Your task to perform on an android device: clear history in the chrome app Image 0: 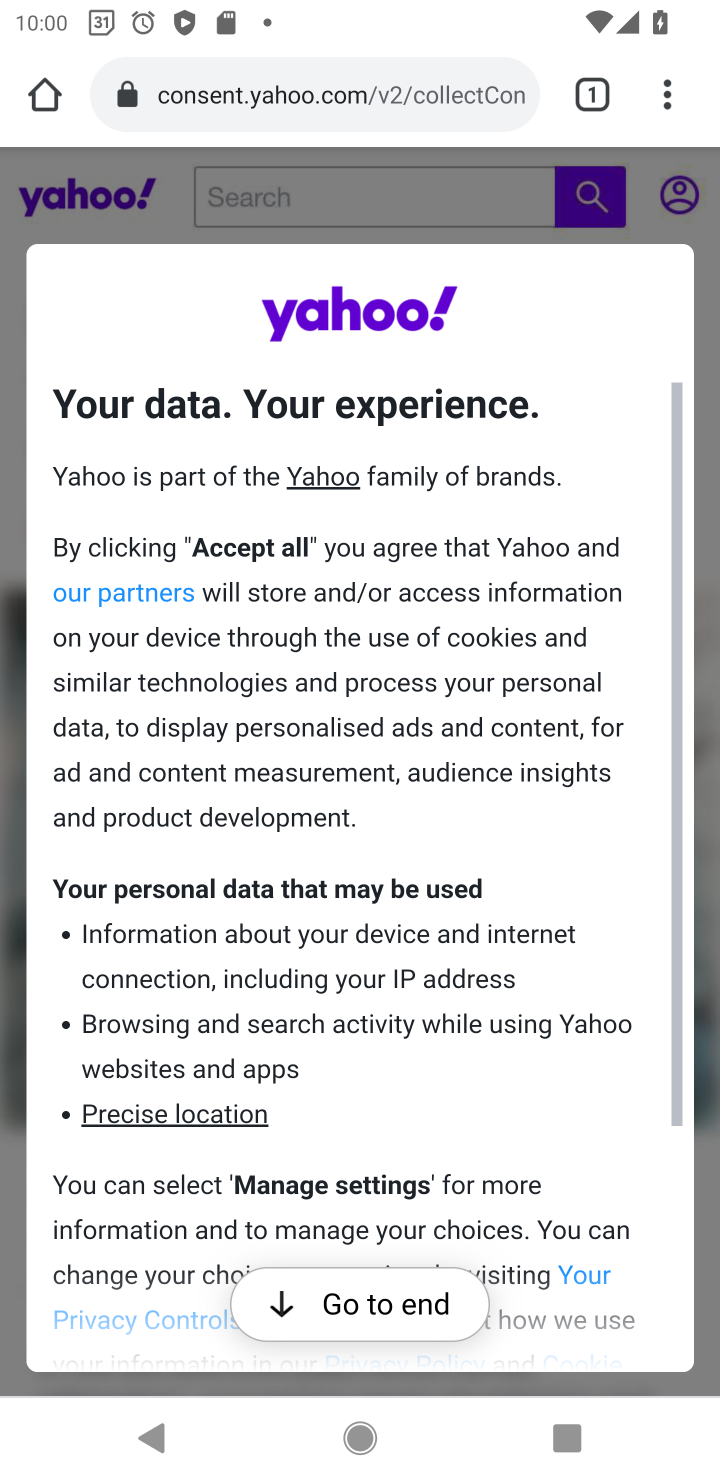
Step 0: press home button
Your task to perform on an android device: clear history in the chrome app Image 1: 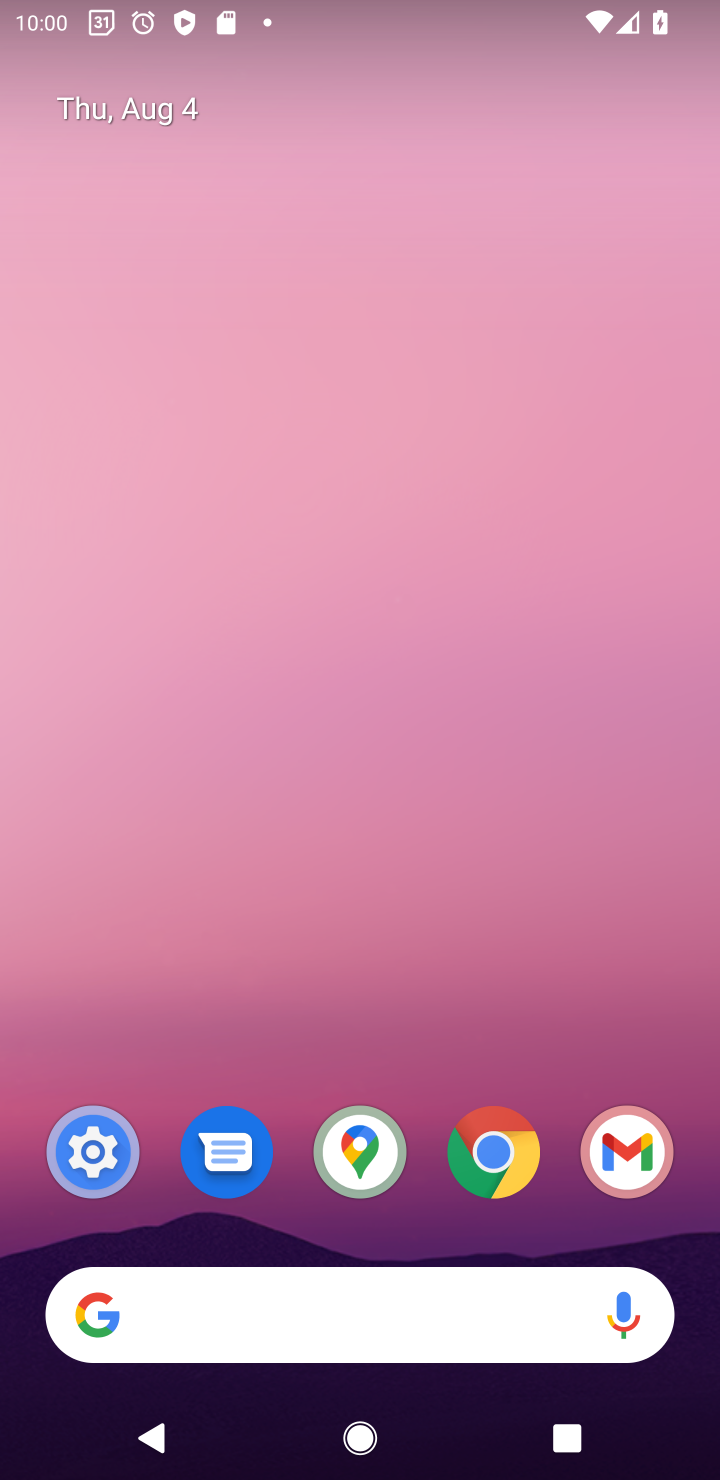
Step 1: click (480, 1151)
Your task to perform on an android device: clear history in the chrome app Image 2: 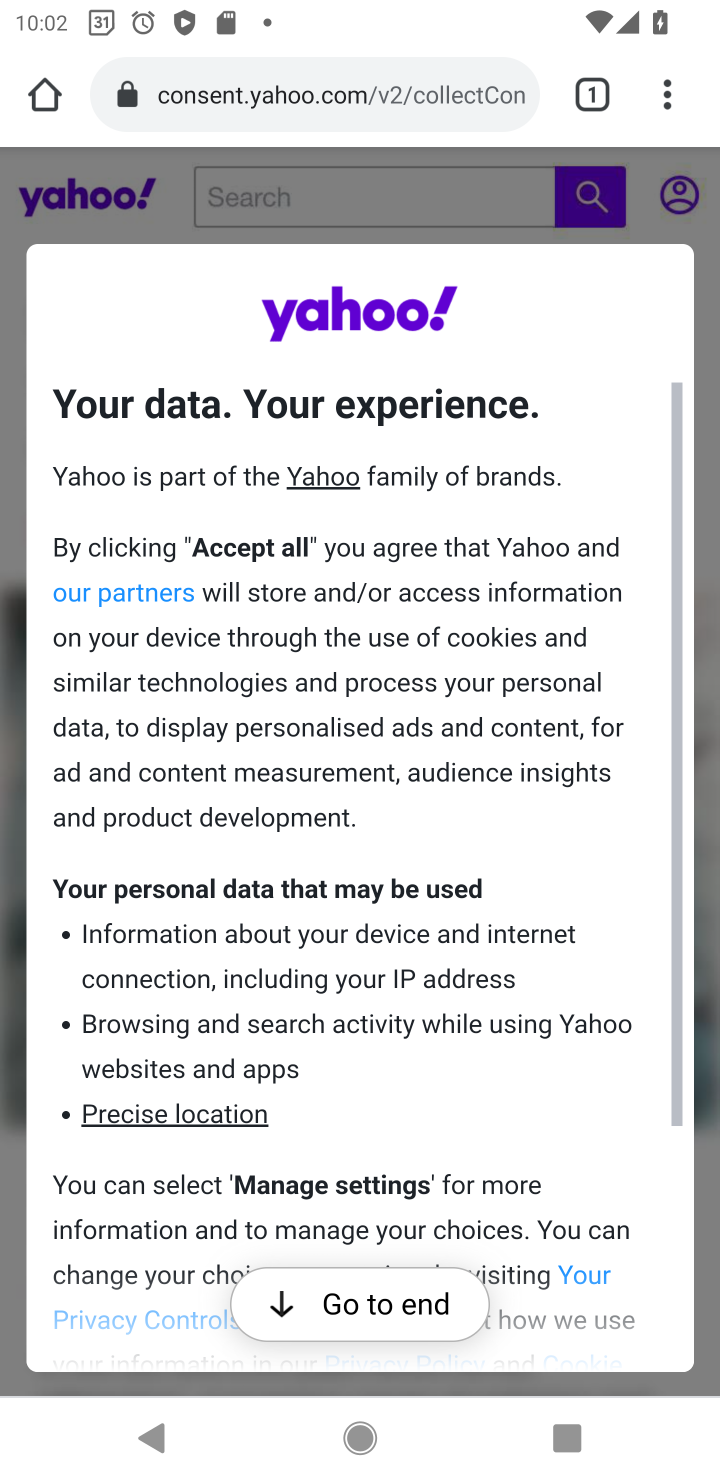
Step 2: click (668, 106)
Your task to perform on an android device: clear history in the chrome app Image 3: 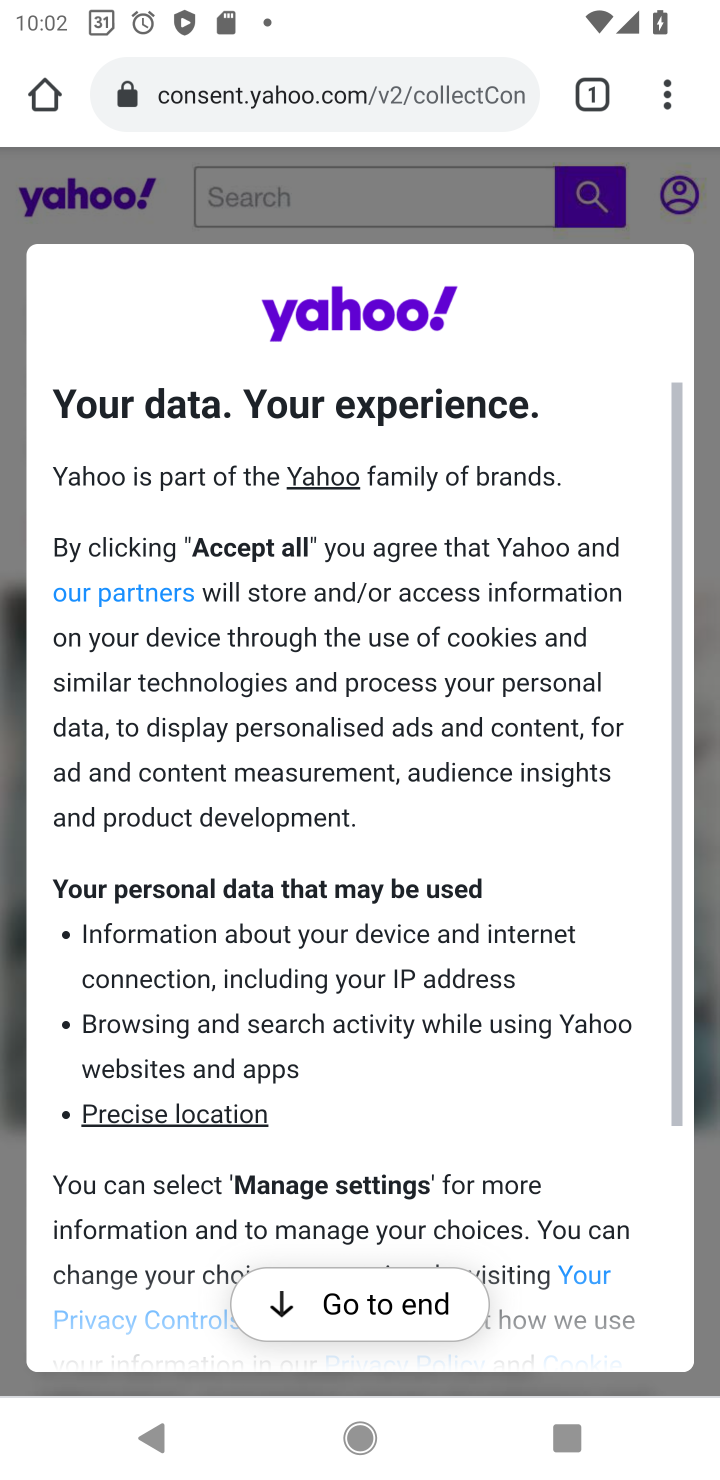
Step 3: click (667, 86)
Your task to perform on an android device: clear history in the chrome app Image 4: 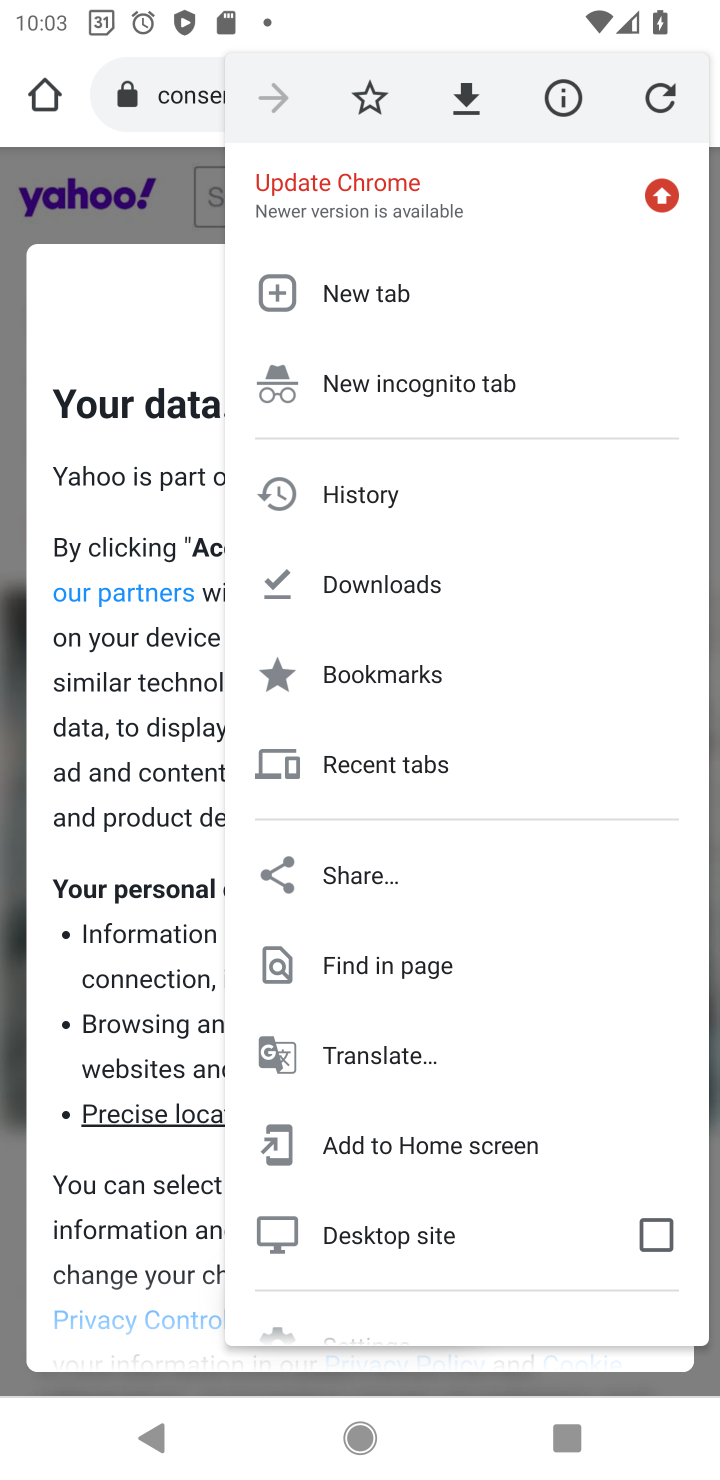
Step 4: click (432, 483)
Your task to perform on an android device: clear history in the chrome app Image 5: 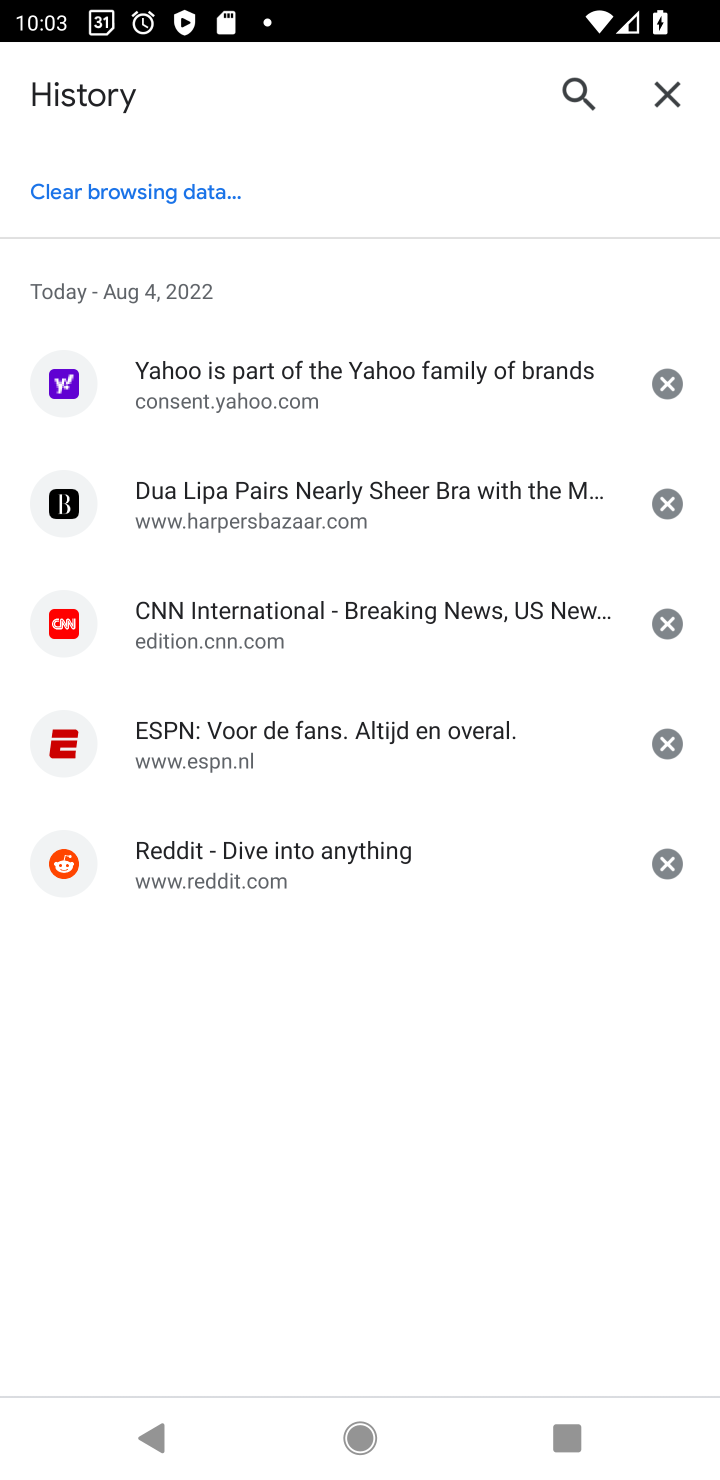
Step 5: click (137, 194)
Your task to perform on an android device: clear history in the chrome app Image 6: 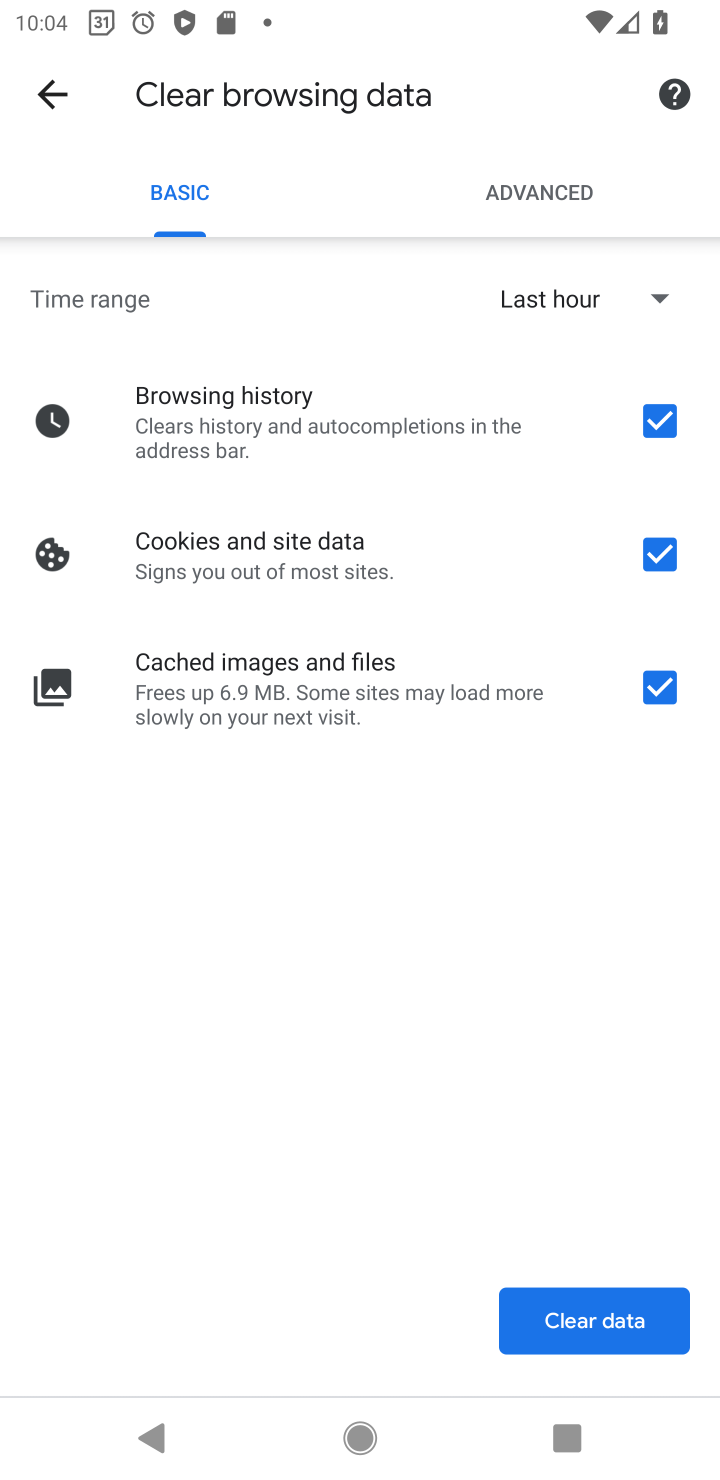
Step 6: click (623, 1317)
Your task to perform on an android device: clear history in the chrome app Image 7: 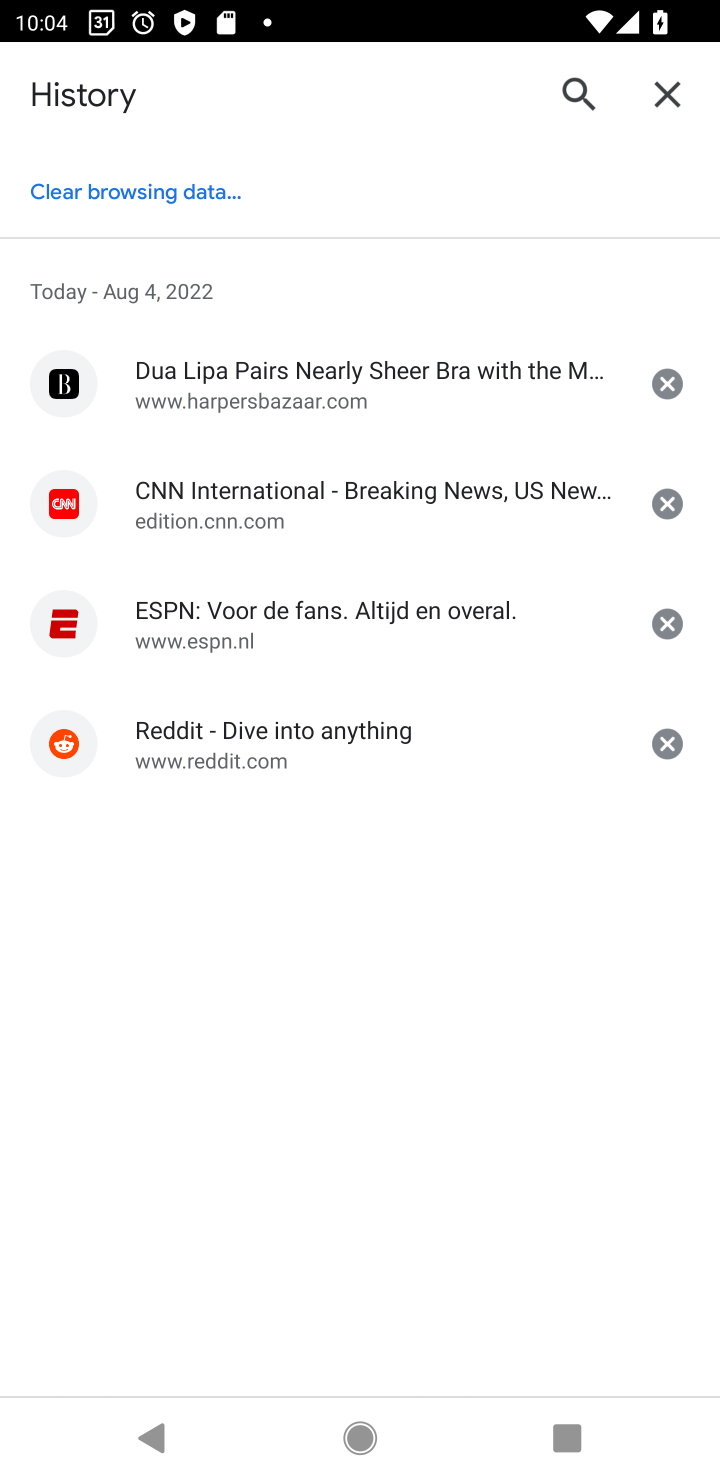
Step 7: click (190, 172)
Your task to perform on an android device: clear history in the chrome app Image 8: 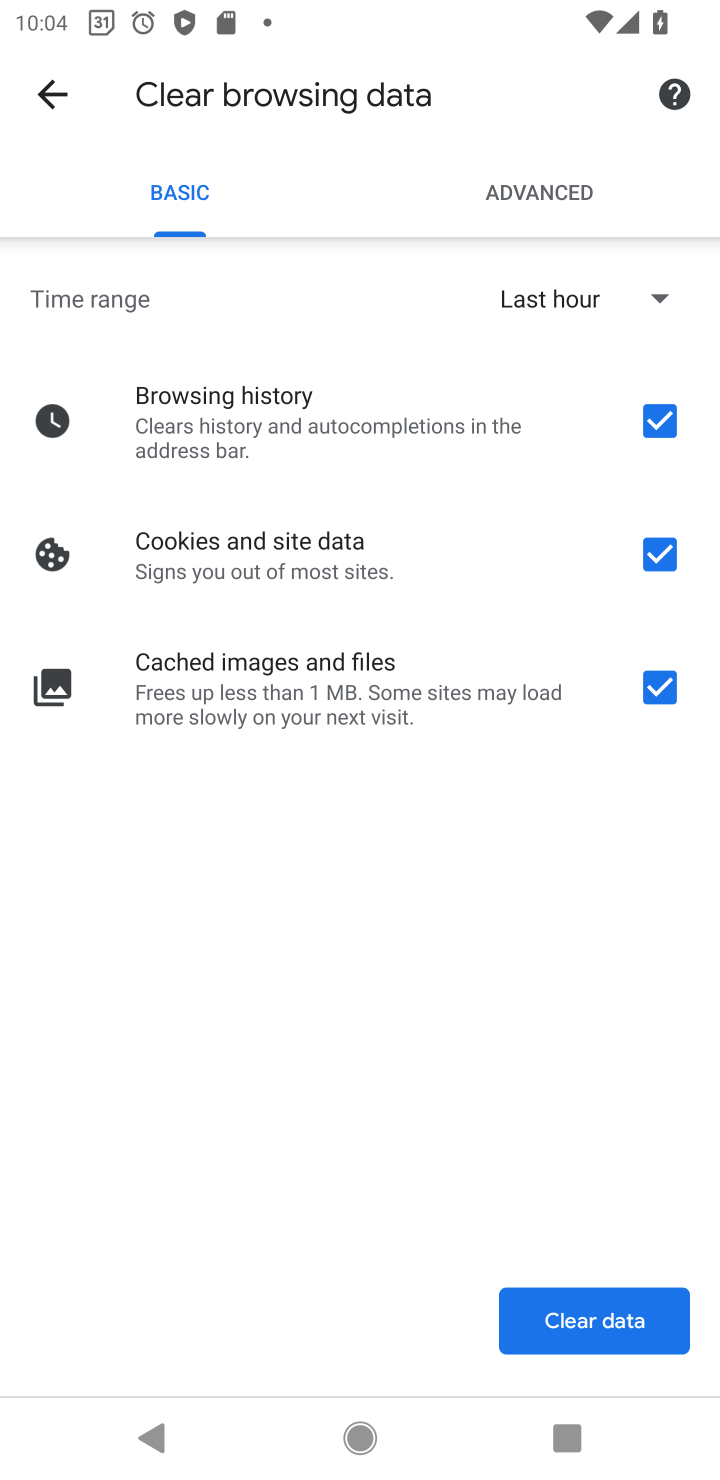
Step 8: click (644, 1304)
Your task to perform on an android device: clear history in the chrome app Image 9: 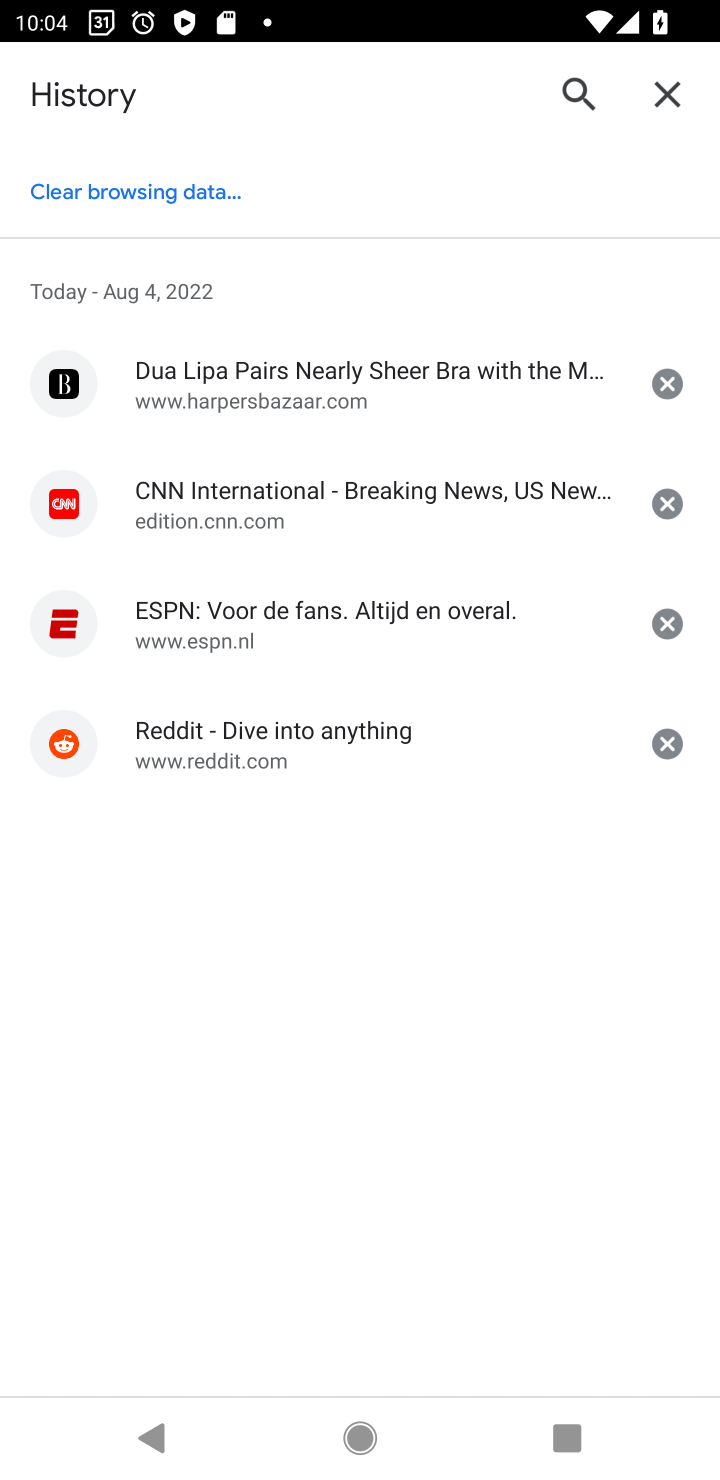
Step 9: task complete